Your task to perform on an android device: manage bookmarks in the chrome app Image 0: 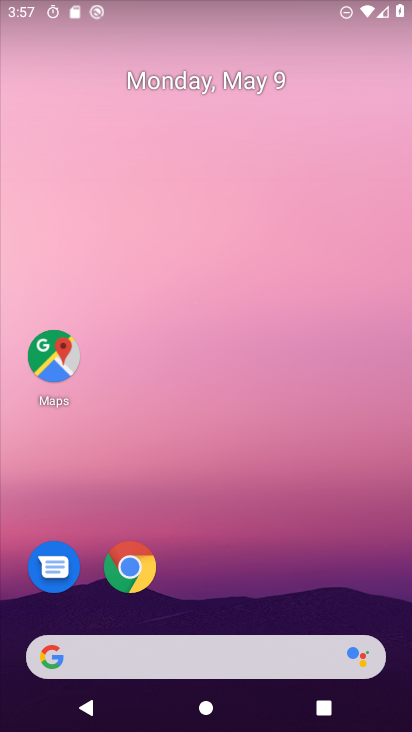
Step 0: click (141, 574)
Your task to perform on an android device: manage bookmarks in the chrome app Image 1: 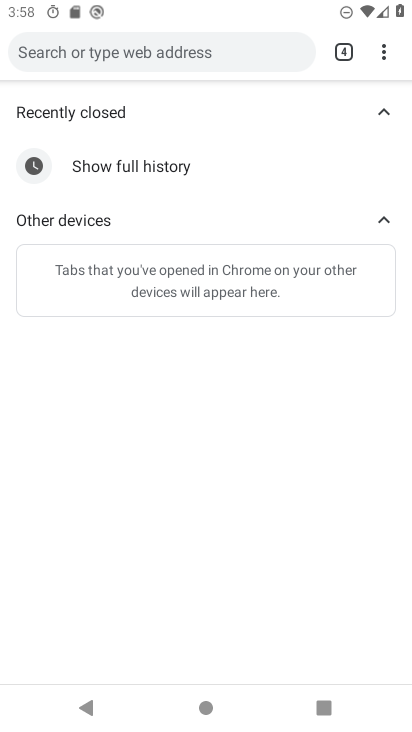
Step 1: click (386, 53)
Your task to perform on an android device: manage bookmarks in the chrome app Image 2: 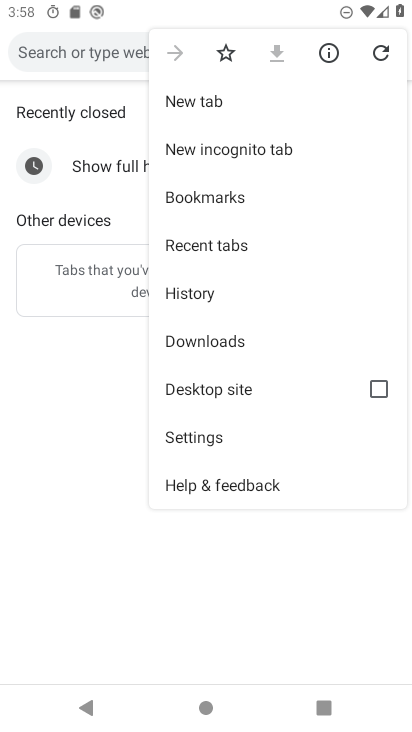
Step 2: click (237, 207)
Your task to perform on an android device: manage bookmarks in the chrome app Image 3: 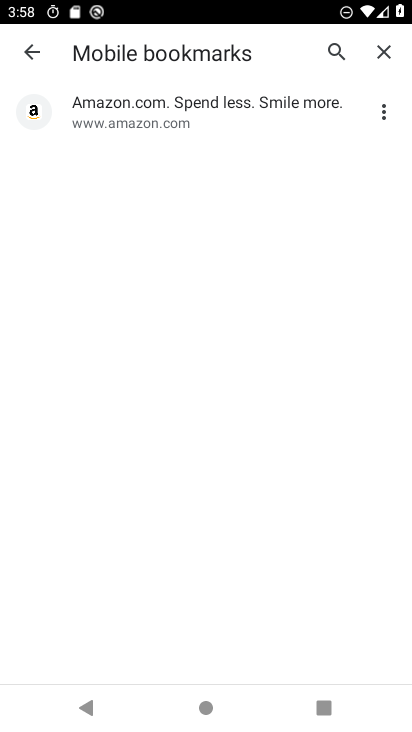
Step 3: click (383, 111)
Your task to perform on an android device: manage bookmarks in the chrome app Image 4: 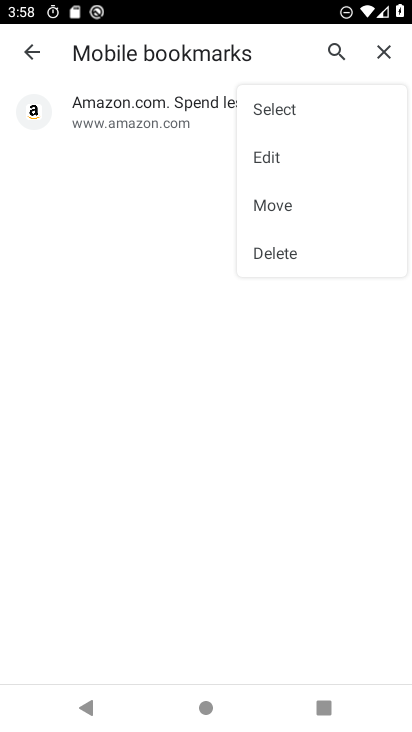
Step 4: click (278, 200)
Your task to perform on an android device: manage bookmarks in the chrome app Image 5: 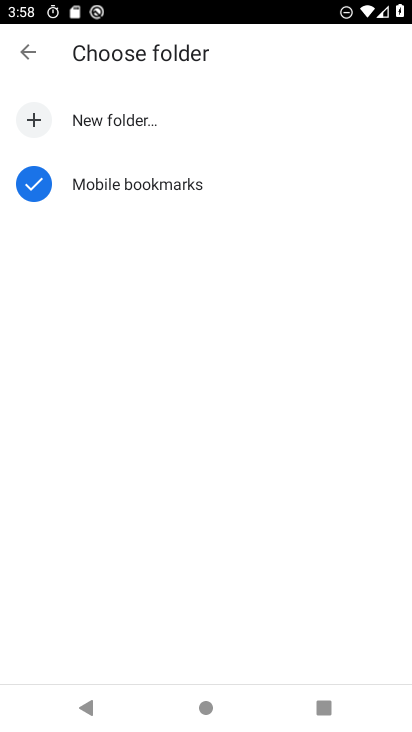
Step 5: click (129, 186)
Your task to perform on an android device: manage bookmarks in the chrome app Image 6: 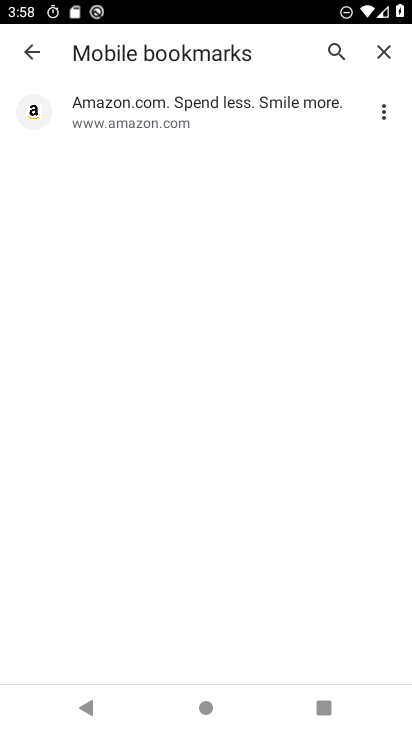
Step 6: task complete